Your task to perform on an android device: Clear all items from cart on ebay.com. Image 0: 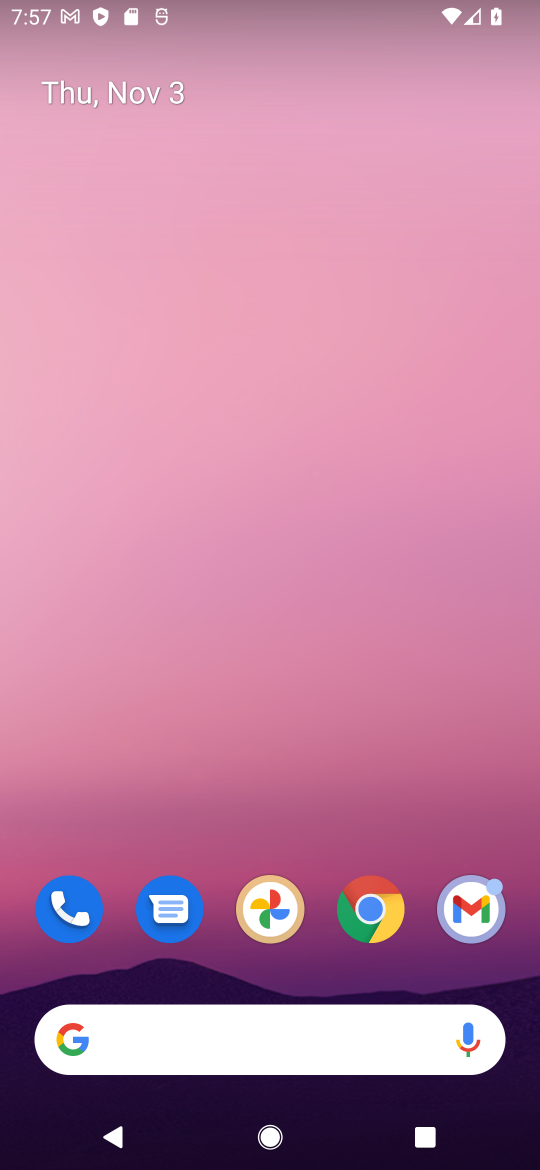
Step 0: drag from (135, 976) to (189, 327)
Your task to perform on an android device: Clear all items from cart on ebay.com. Image 1: 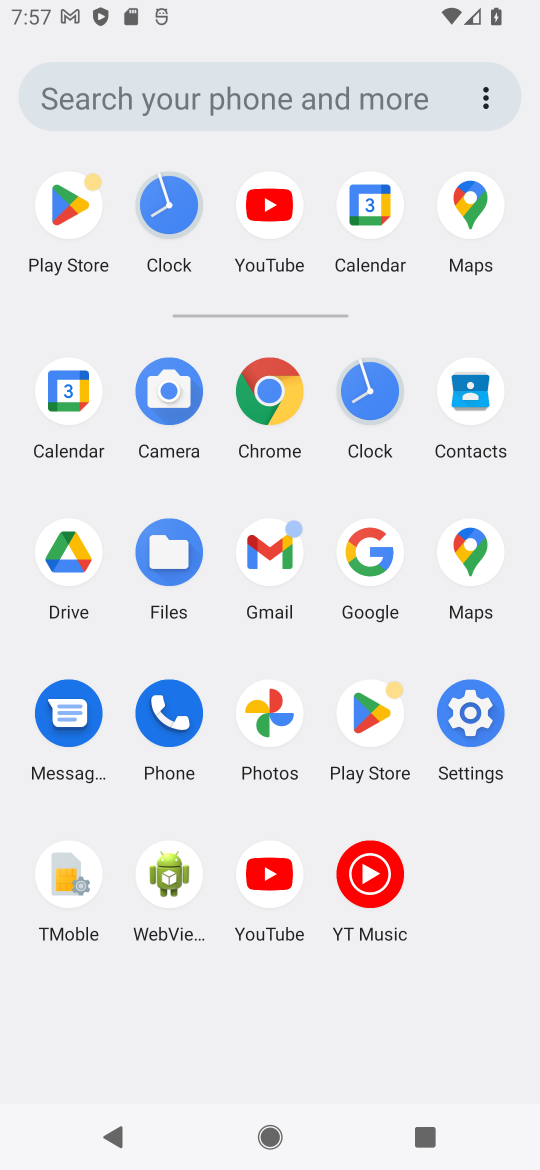
Step 1: click (385, 528)
Your task to perform on an android device: Clear all items from cart on ebay.com. Image 2: 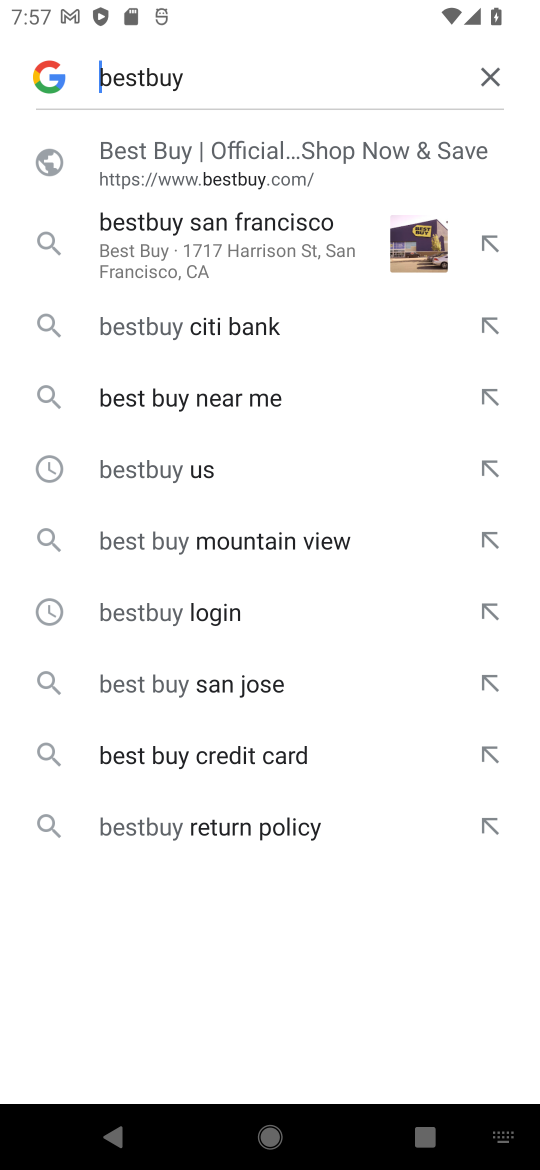
Step 2: click (505, 85)
Your task to perform on an android device: Clear all items from cart on ebay.com. Image 3: 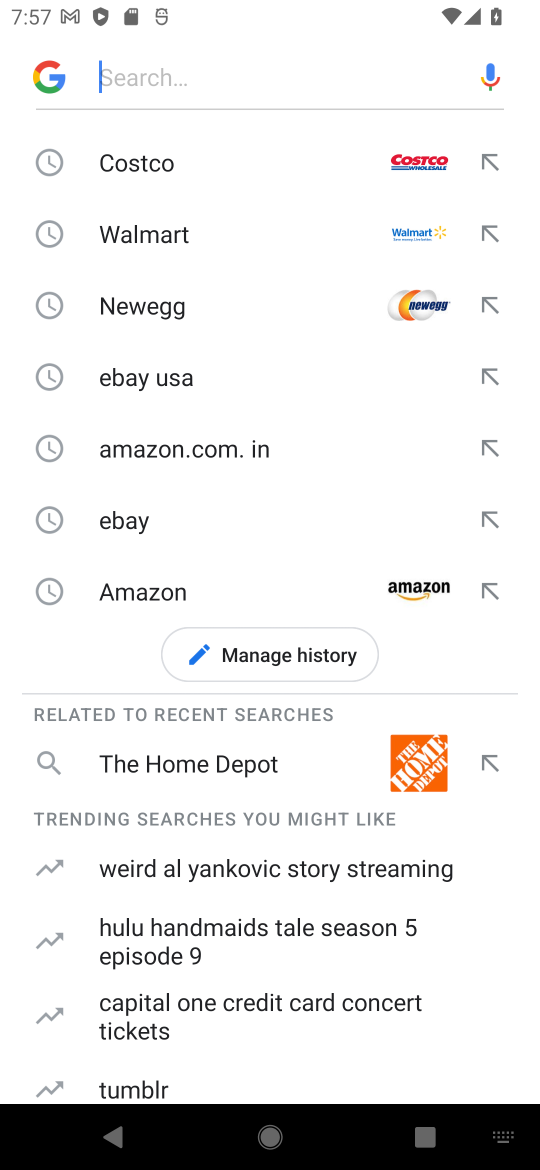
Step 3: click (193, 66)
Your task to perform on an android device: Clear all items from cart on ebay.com. Image 4: 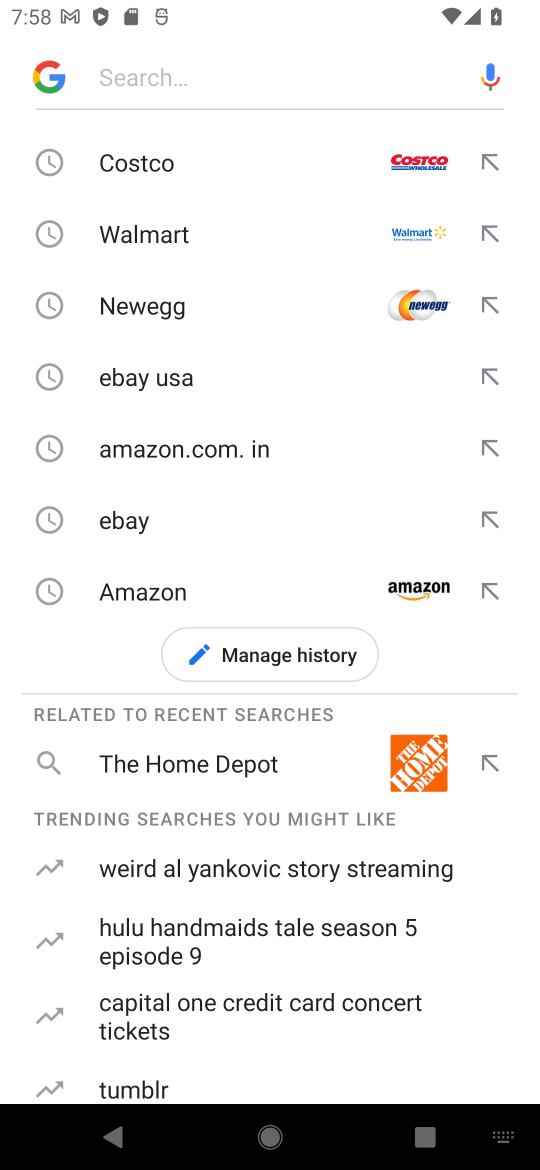
Step 4: type "ebay "
Your task to perform on an android device: Clear all items from cart on ebay.com. Image 5: 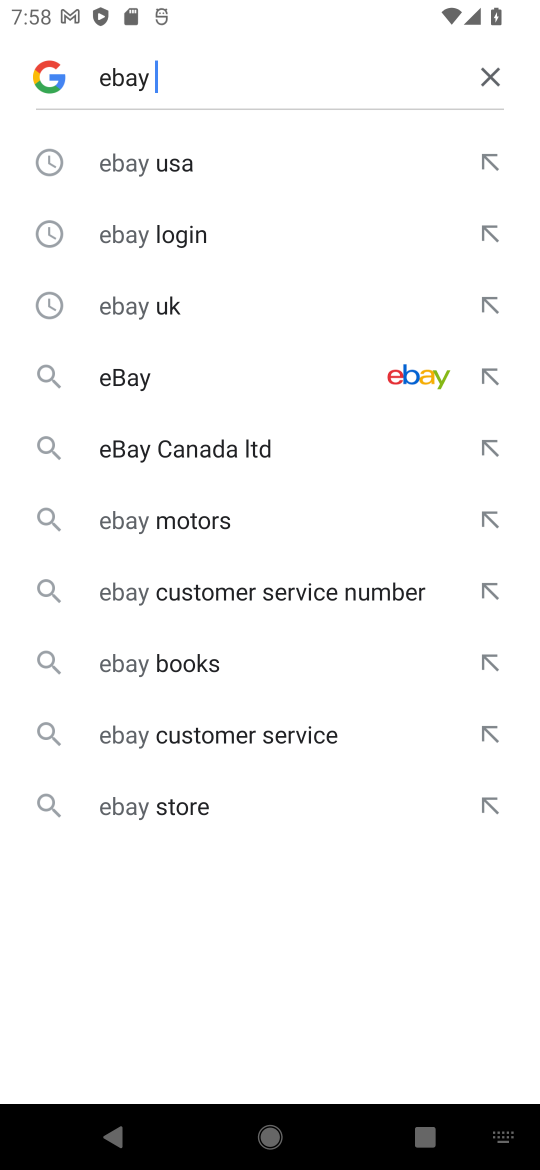
Step 5: click (140, 145)
Your task to perform on an android device: Clear all items from cart on ebay.com. Image 6: 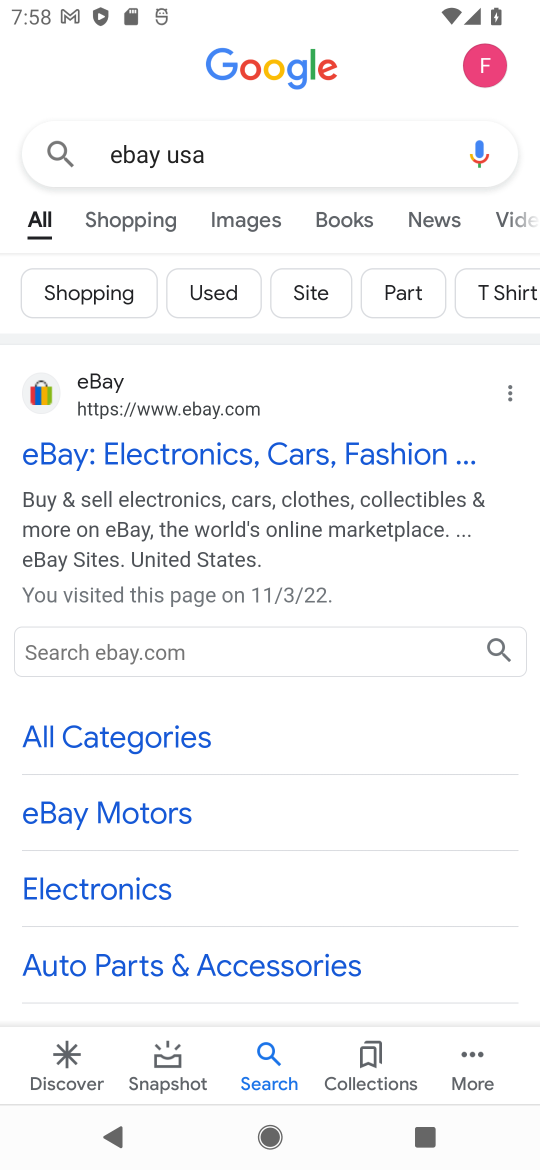
Step 6: click (34, 400)
Your task to perform on an android device: Clear all items from cart on ebay.com. Image 7: 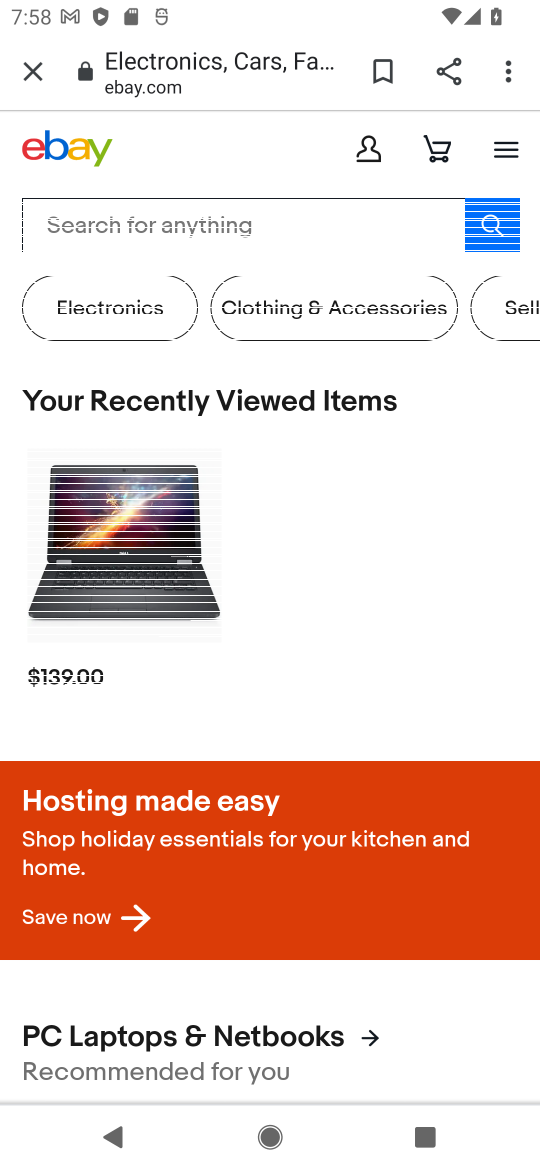
Step 7: click (416, 152)
Your task to perform on an android device: Clear all items from cart on ebay.com. Image 8: 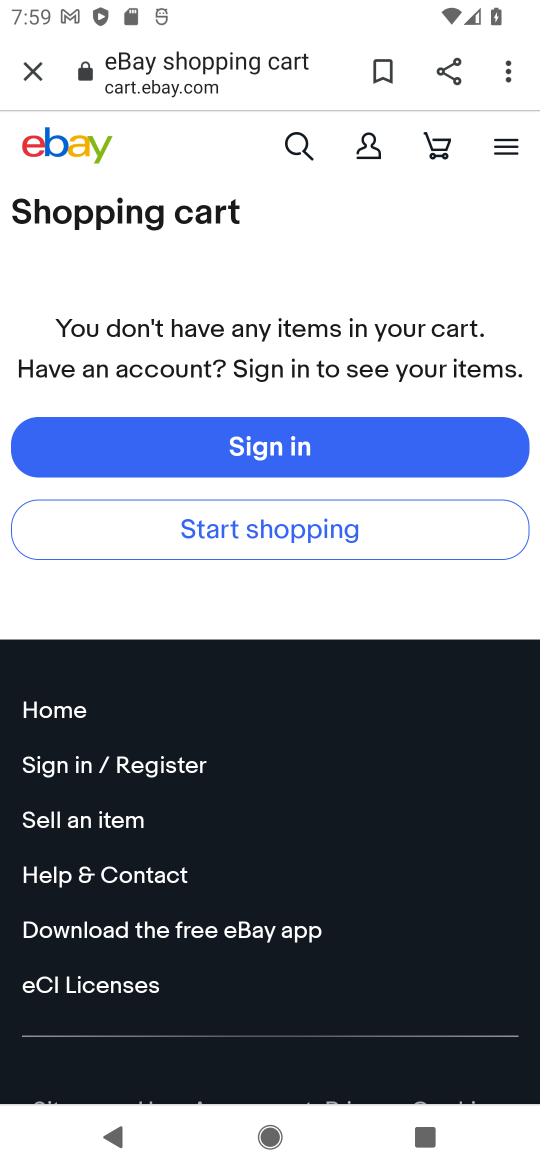
Step 8: task complete